Your task to perform on an android device: Turn off the flashlight Image 0: 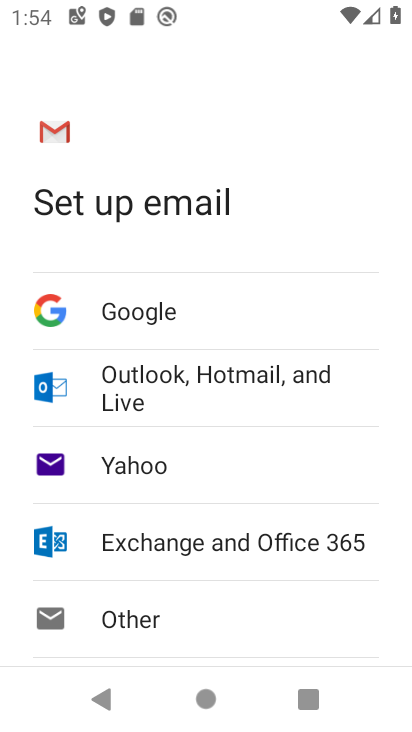
Step 0: press home button
Your task to perform on an android device: Turn off the flashlight Image 1: 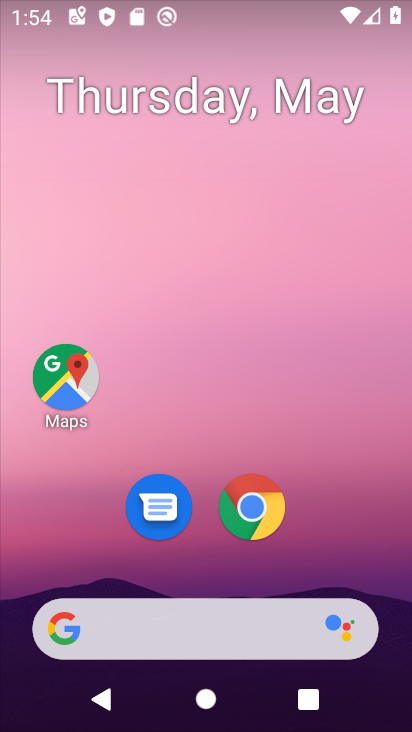
Step 1: click (140, 274)
Your task to perform on an android device: Turn off the flashlight Image 2: 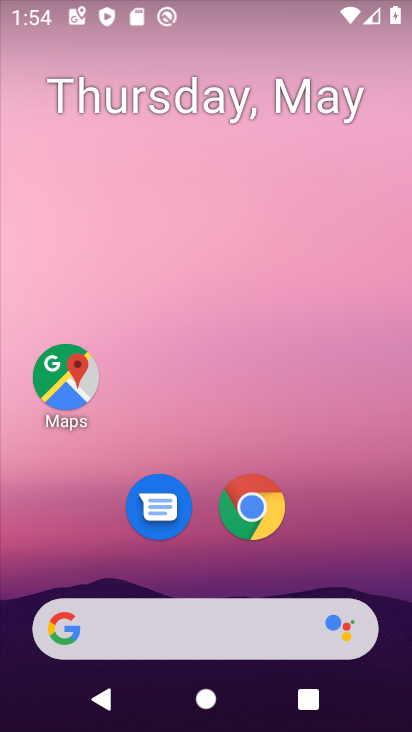
Step 2: task complete